Your task to perform on an android device: allow cookies in the chrome app Image 0: 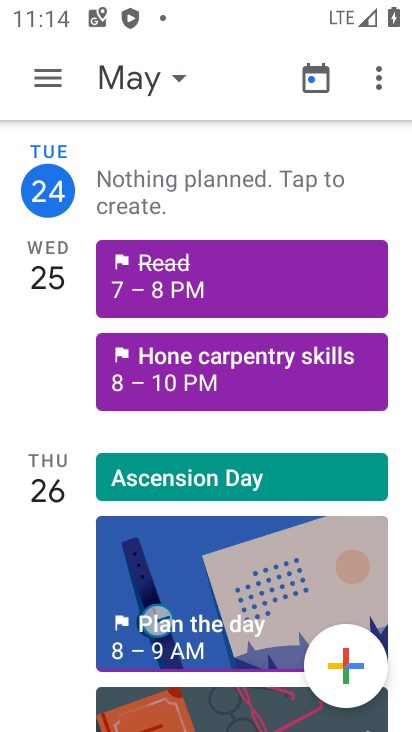
Step 0: press home button
Your task to perform on an android device: allow cookies in the chrome app Image 1: 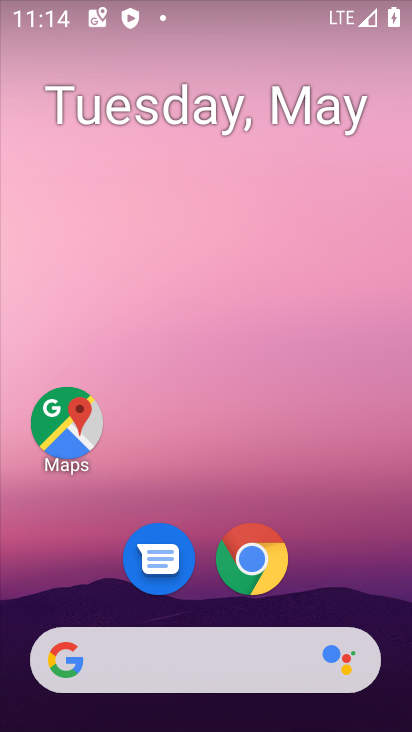
Step 1: drag from (349, 607) to (323, 93)
Your task to perform on an android device: allow cookies in the chrome app Image 2: 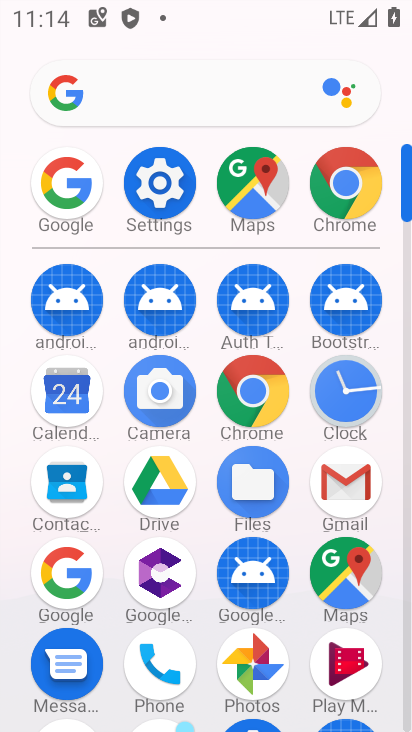
Step 2: click (238, 389)
Your task to perform on an android device: allow cookies in the chrome app Image 3: 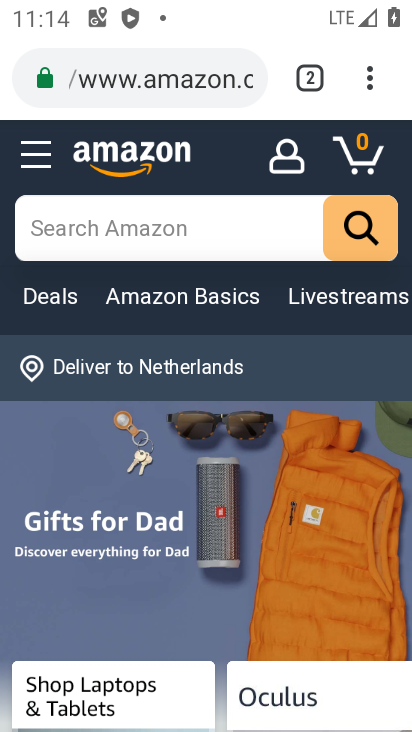
Step 3: drag from (379, 73) to (212, 624)
Your task to perform on an android device: allow cookies in the chrome app Image 4: 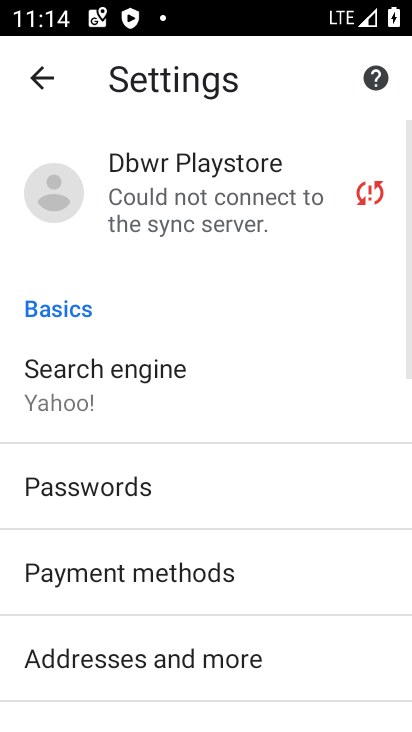
Step 4: drag from (340, 688) to (341, 202)
Your task to perform on an android device: allow cookies in the chrome app Image 5: 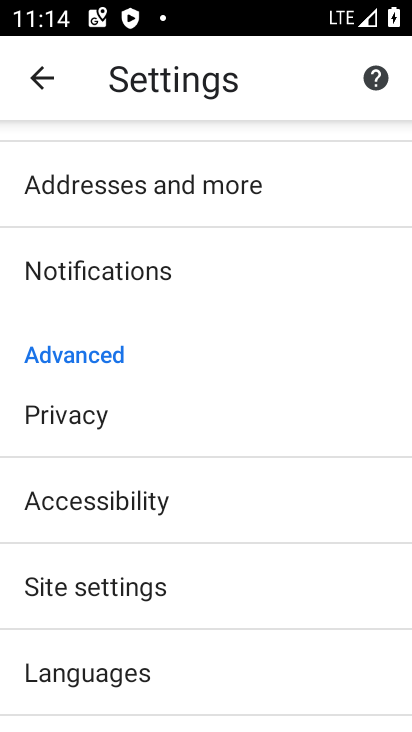
Step 5: drag from (213, 611) to (252, 276)
Your task to perform on an android device: allow cookies in the chrome app Image 6: 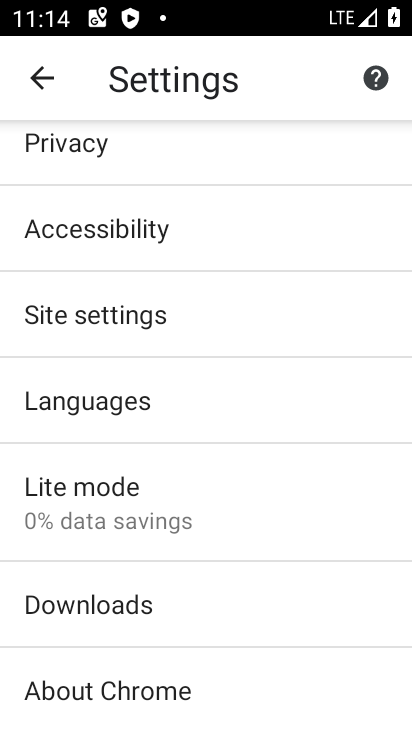
Step 6: click (182, 327)
Your task to perform on an android device: allow cookies in the chrome app Image 7: 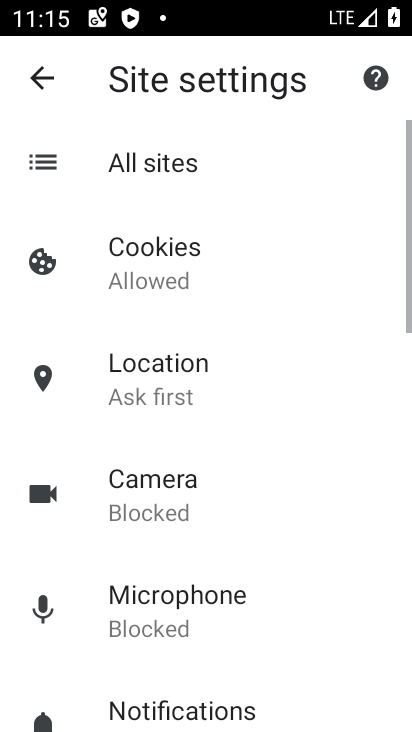
Step 7: click (202, 257)
Your task to perform on an android device: allow cookies in the chrome app Image 8: 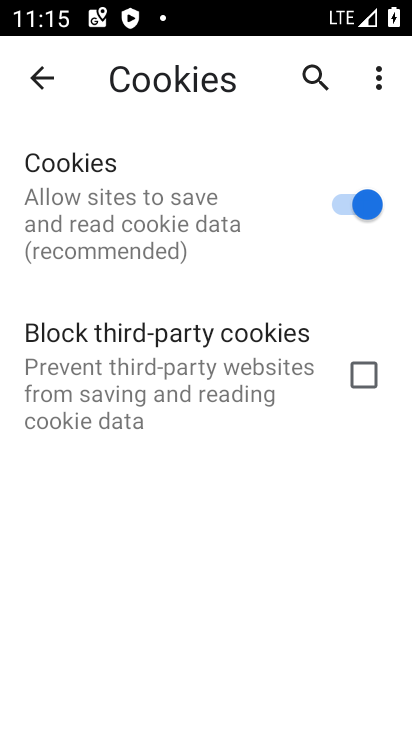
Step 8: task complete